Your task to perform on an android device: toggle priority inbox in the gmail app Image 0: 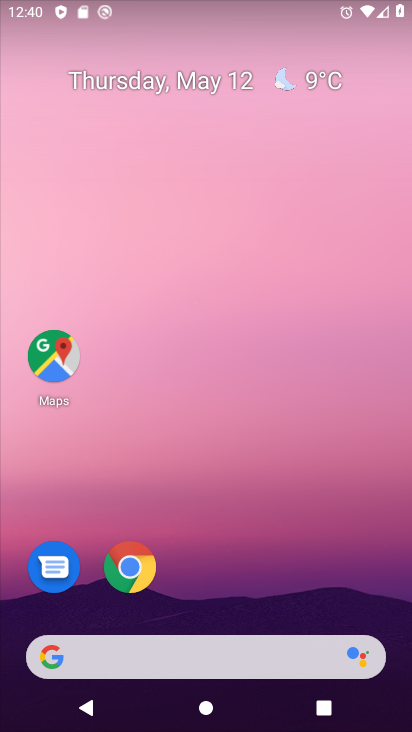
Step 0: drag from (216, 632) to (322, 135)
Your task to perform on an android device: toggle priority inbox in the gmail app Image 1: 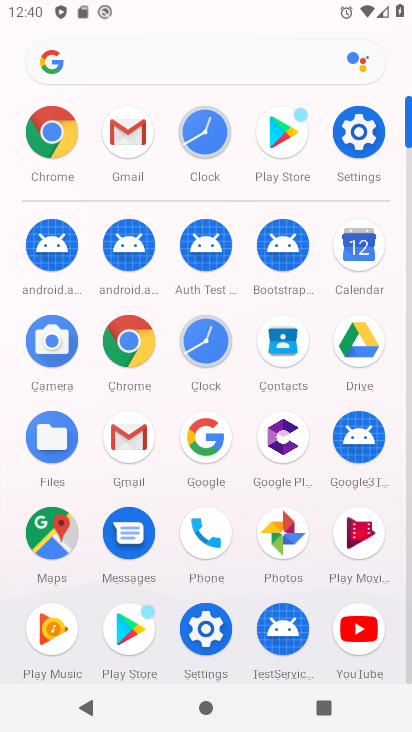
Step 1: click (123, 441)
Your task to perform on an android device: toggle priority inbox in the gmail app Image 2: 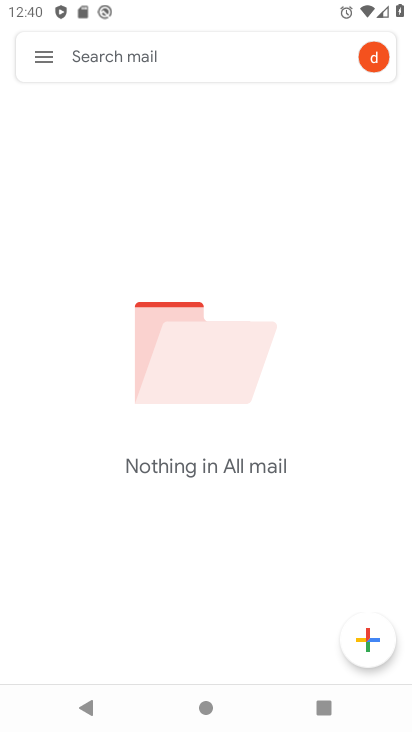
Step 2: click (59, 52)
Your task to perform on an android device: toggle priority inbox in the gmail app Image 3: 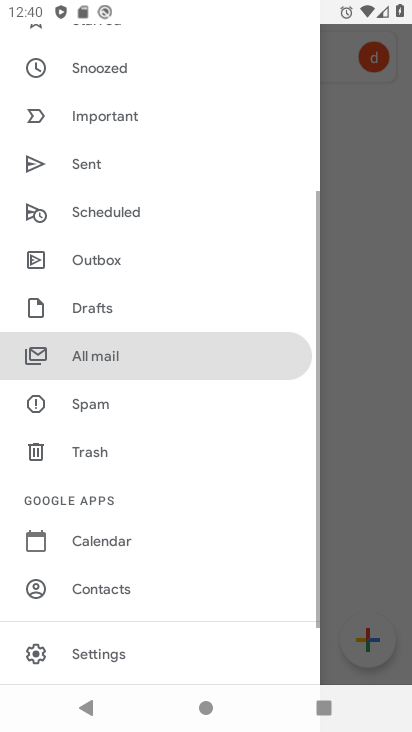
Step 3: drag from (140, 608) to (219, 324)
Your task to perform on an android device: toggle priority inbox in the gmail app Image 4: 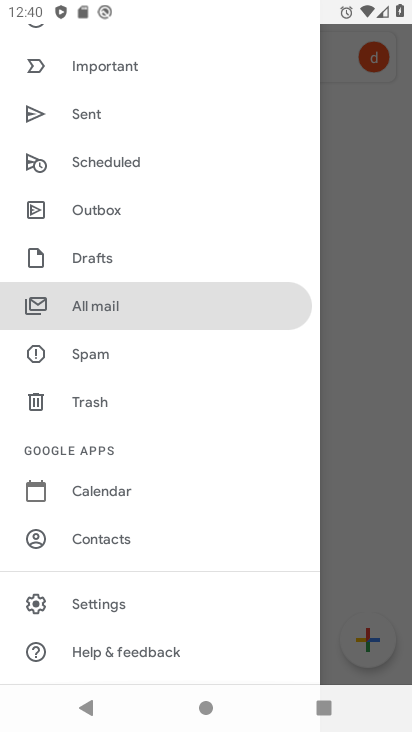
Step 4: click (116, 612)
Your task to perform on an android device: toggle priority inbox in the gmail app Image 5: 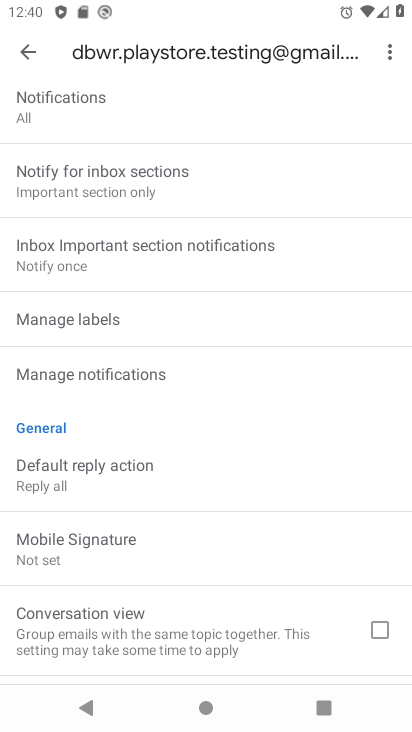
Step 5: drag from (128, 598) to (243, 653)
Your task to perform on an android device: toggle priority inbox in the gmail app Image 6: 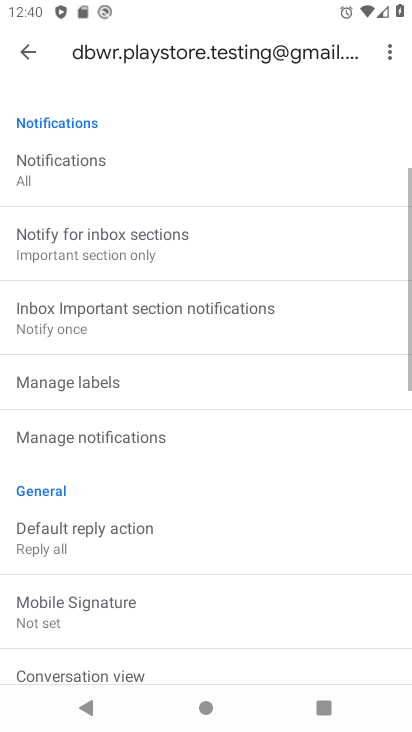
Step 6: drag from (234, 176) to (218, 583)
Your task to perform on an android device: toggle priority inbox in the gmail app Image 7: 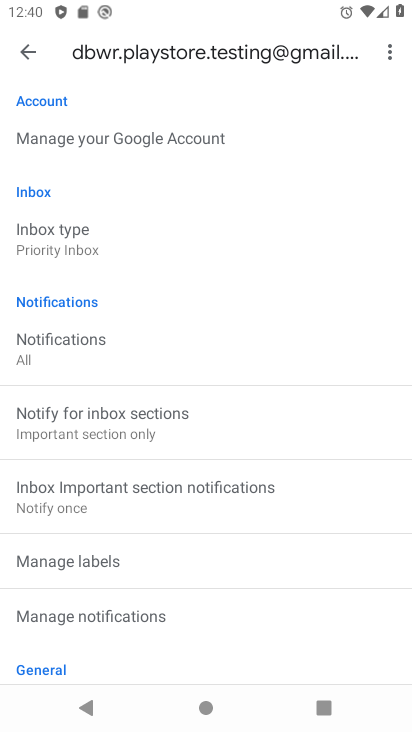
Step 7: click (119, 242)
Your task to perform on an android device: toggle priority inbox in the gmail app Image 8: 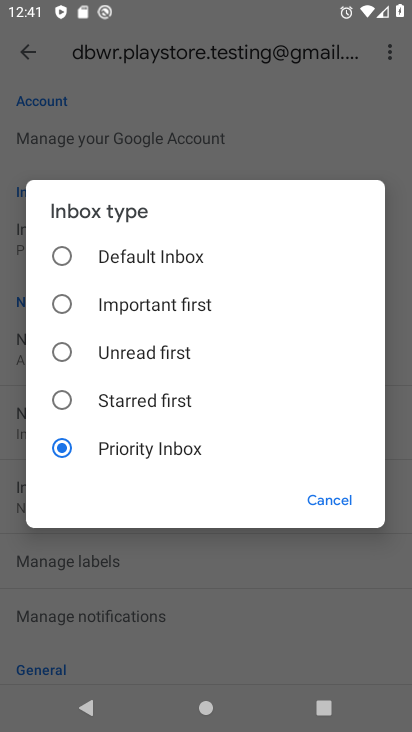
Step 8: click (176, 267)
Your task to perform on an android device: toggle priority inbox in the gmail app Image 9: 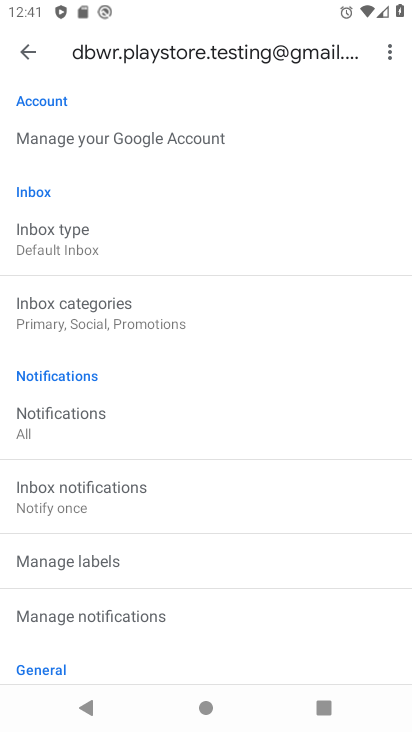
Step 9: task complete